Your task to perform on an android device: Show me the alarms in the clock app Image 0: 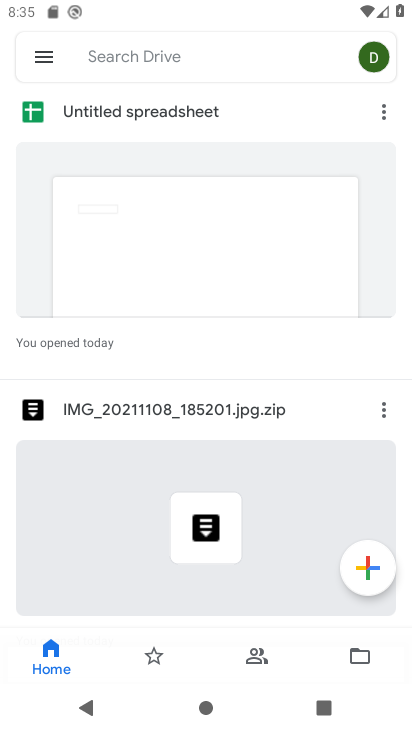
Step 0: press home button
Your task to perform on an android device: Show me the alarms in the clock app Image 1: 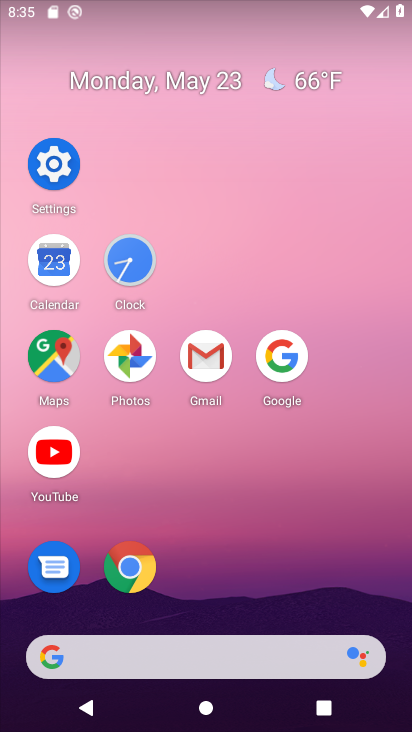
Step 1: click (153, 270)
Your task to perform on an android device: Show me the alarms in the clock app Image 2: 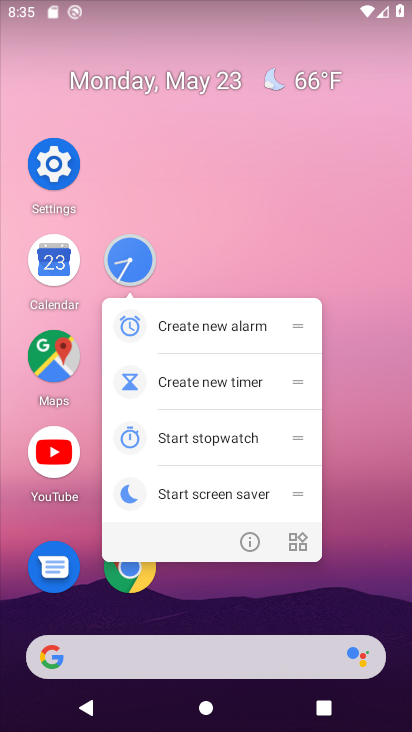
Step 2: click (128, 247)
Your task to perform on an android device: Show me the alarms in the clock app Image 3: 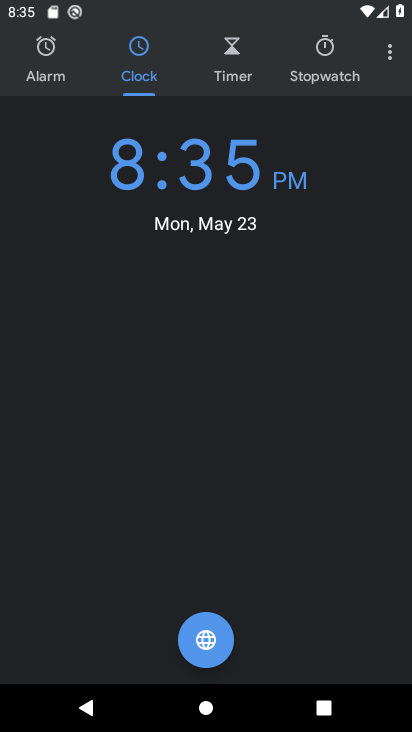
Step 3: click (46, 58)
Your task to perform on an android device: Show me the alarms in the clock app Image 4: 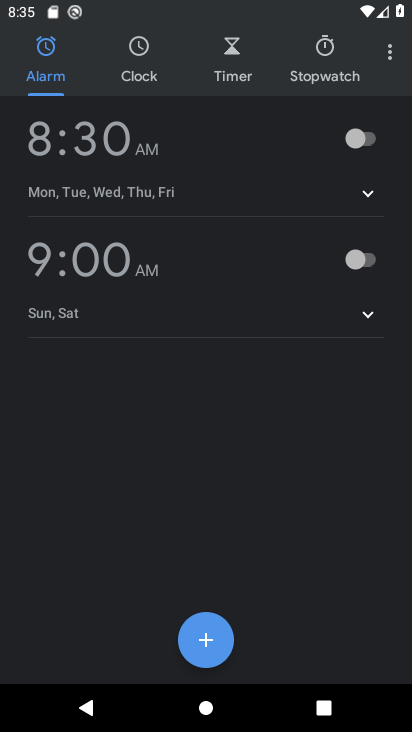
Step 4: task complete